Your task to perform on an android device: Open the stopwatch Image 0: 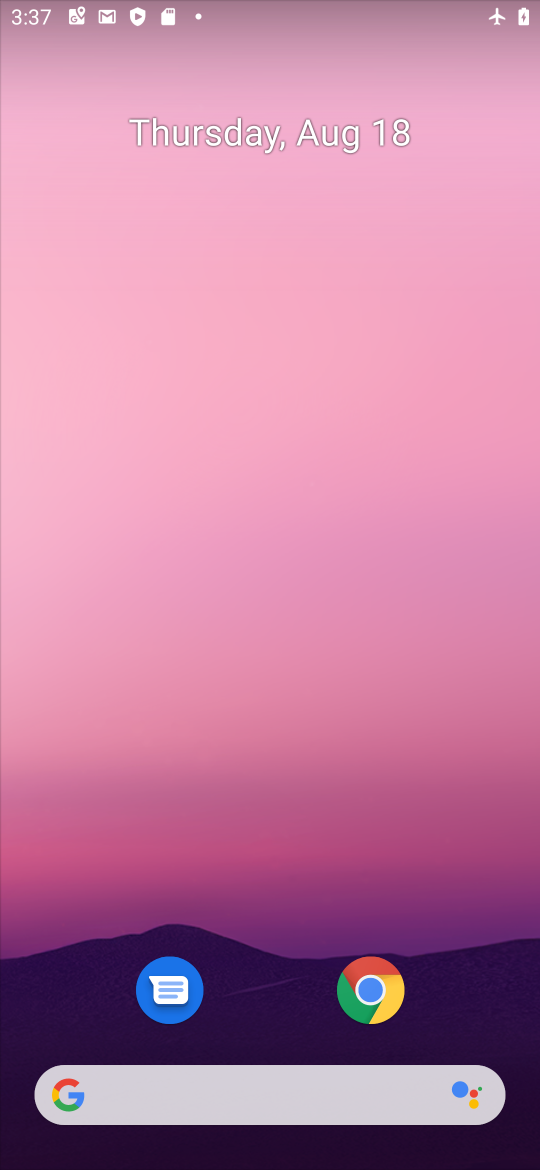
Step 0: drag from (272, 950) to (372, 208)
Your task to perform on an android device: Open the stopwatch Image 1: 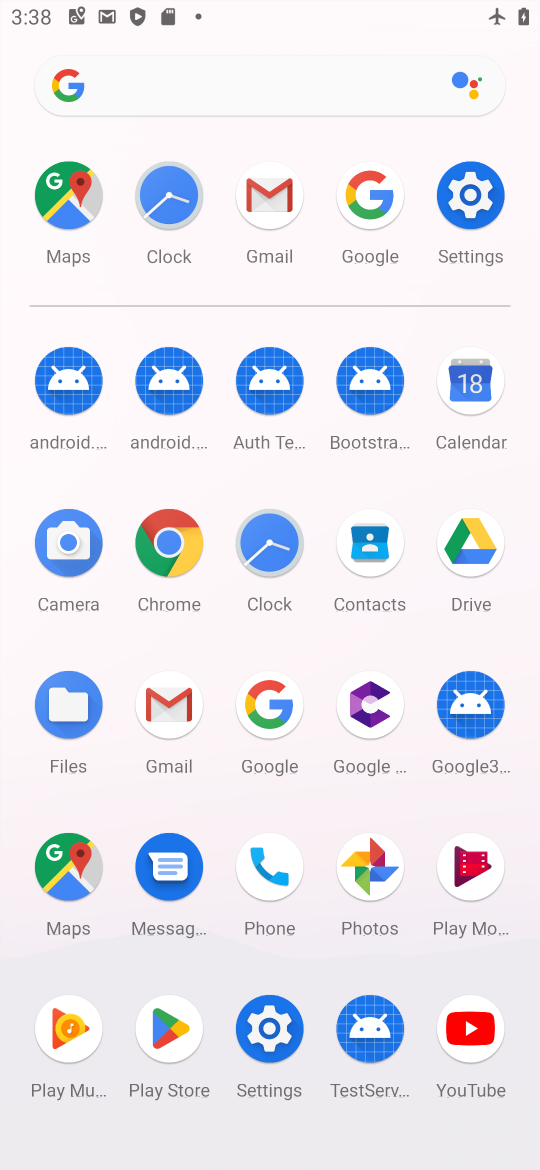
Step 1: click (259, 536)
Your task to perform on an android device: Open the stopwatch Image 2: 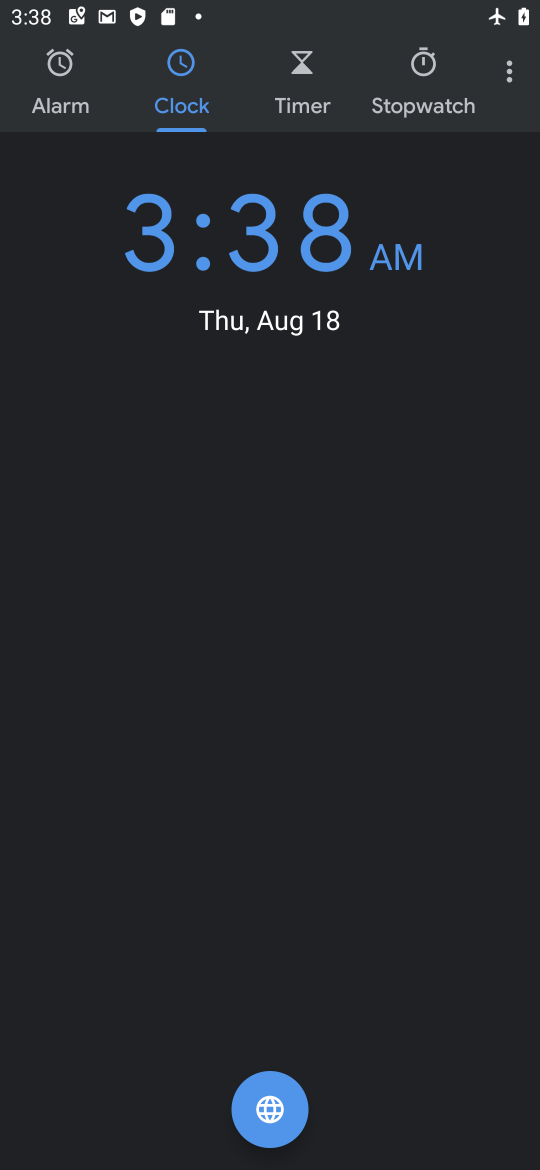
Step 2: click (449, 85)
Your task to perform on an android device: Open the stopwatch Image 3: 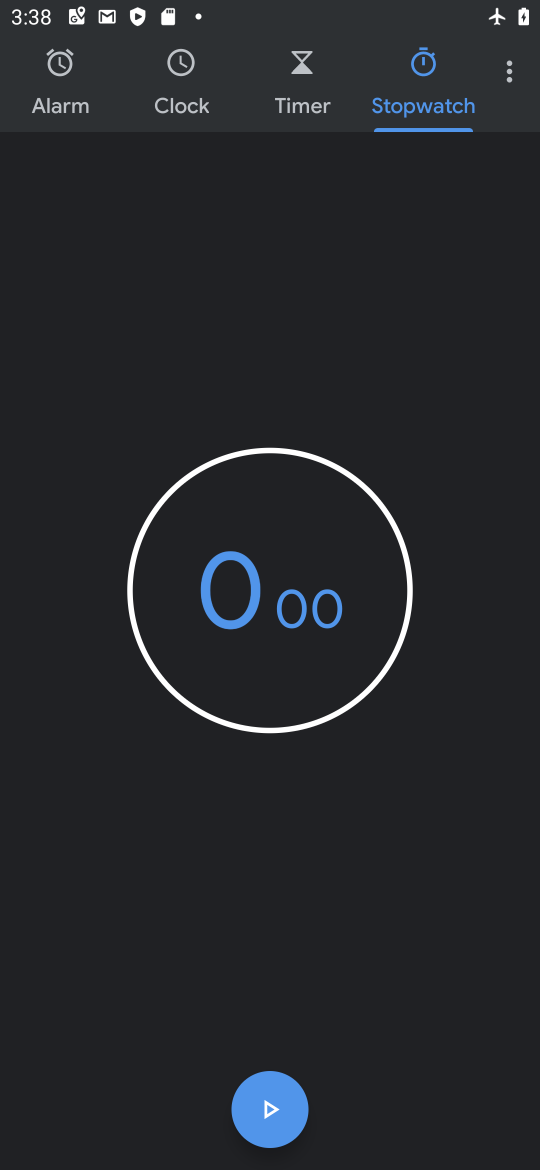
Step 3: task complete